Your task to perform on an android device: turn on location history Image 0: 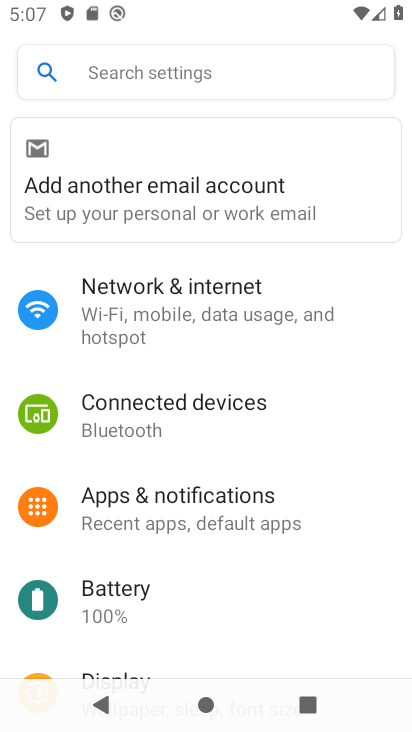
Step 0: drag from (201, 542) to (232, 236)
Your task to perform on an android device: turn on location history Image 1: 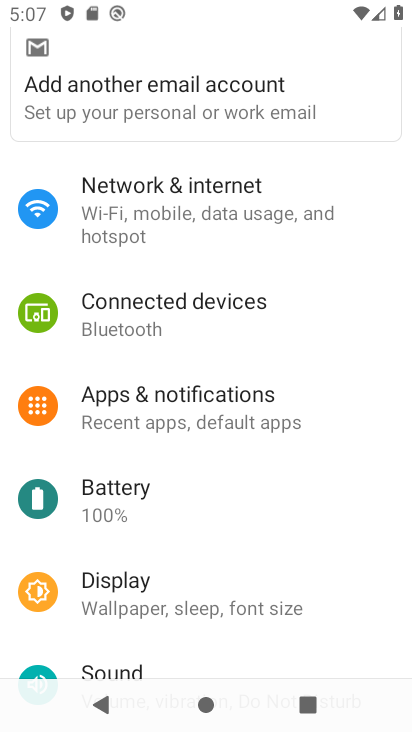
Step 1: drag from (175, 550) to (269, 164)
Your task to perform on an android device: turn on location history Image 2: 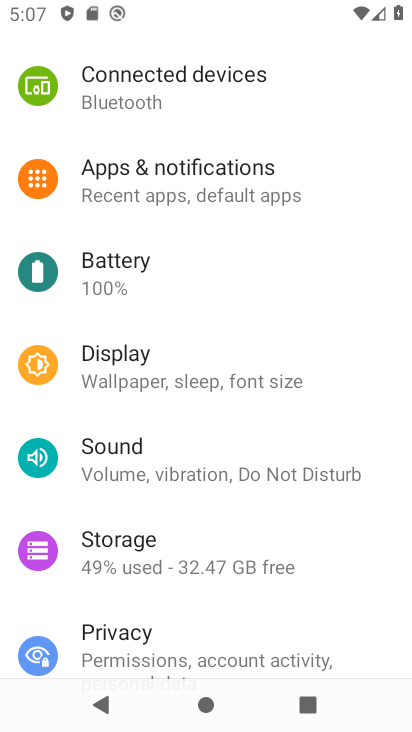
Step 2: drag from (223, 552) to (298, 129)
Your task to perform on an android device: turn on location history Image 3: 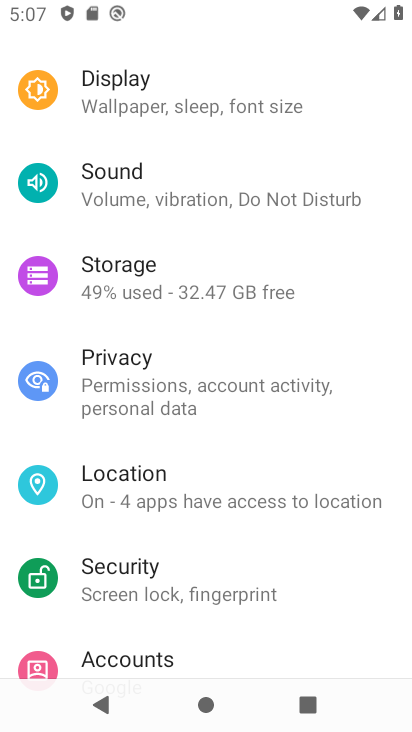
Step 3: click (173, 476)
Your task to perform on an android device: turn on location history Image 4: 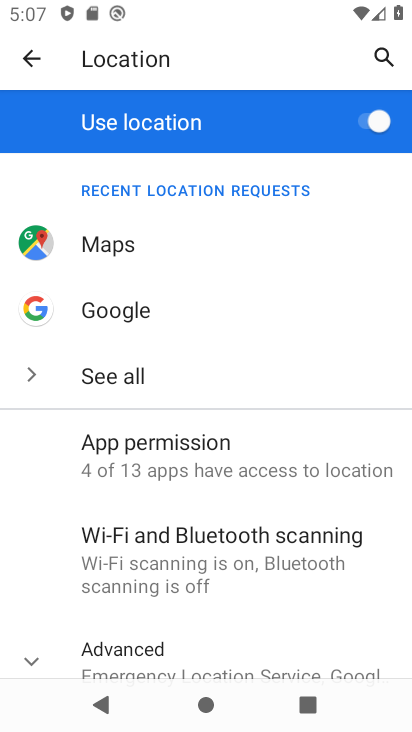
Step 4: drag from (165, 608) to (265, 247)
Your task to perform on an android device: turn on location history Image 5: 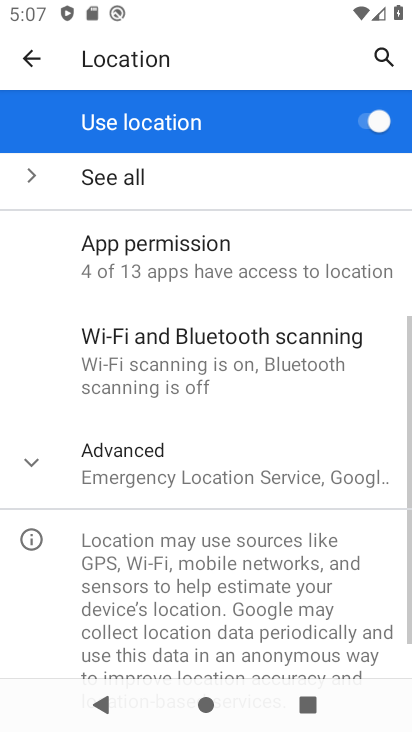
Step 5: drag from (171, 585) to (264, 248)
Your task to perform on an android device: turn on location history Image 6: 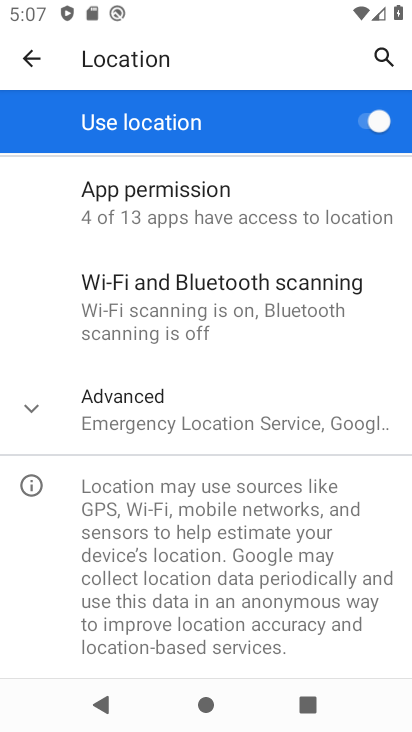
Step 6: click (158, 428)
Your task to perform on an android device: turn on location history Image 7: 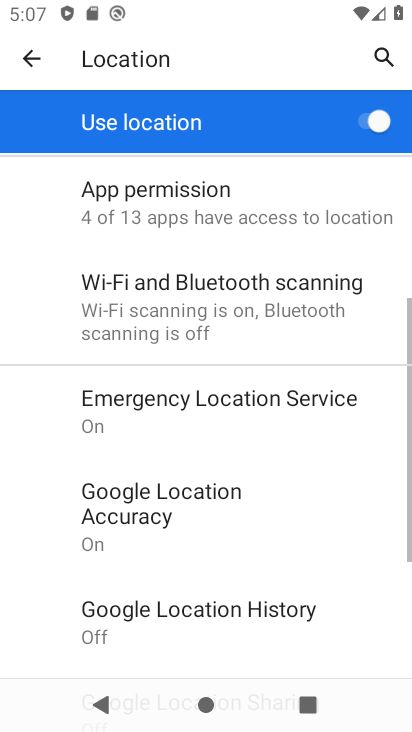
Step 7: drag from (203, 560) to (227, 382)
Your task to perform on an android device: turn on location history Image 8: 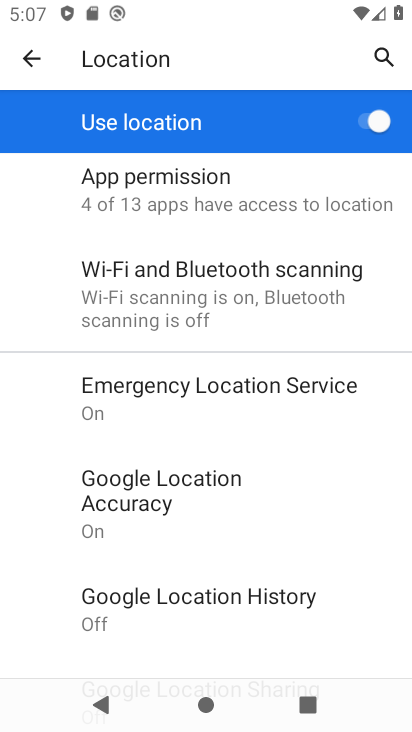
Step 8: click (197, 600)
Your task to perform on an android device: turn on location history Image 9: 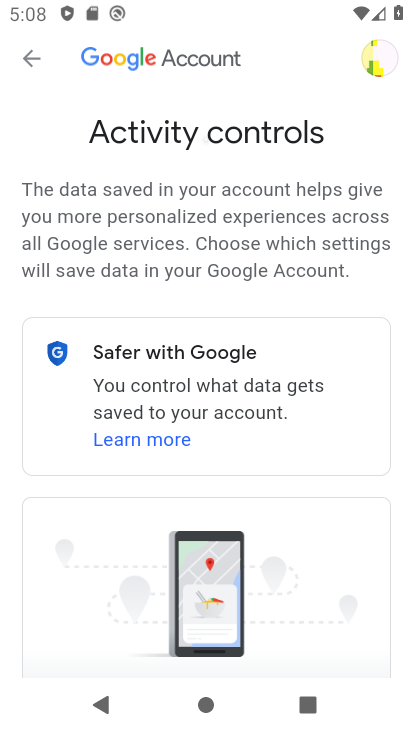
Step 9: drag from (266, 494) to (300, 244)
Your task to perform on an android device: turn on location history Image 10: 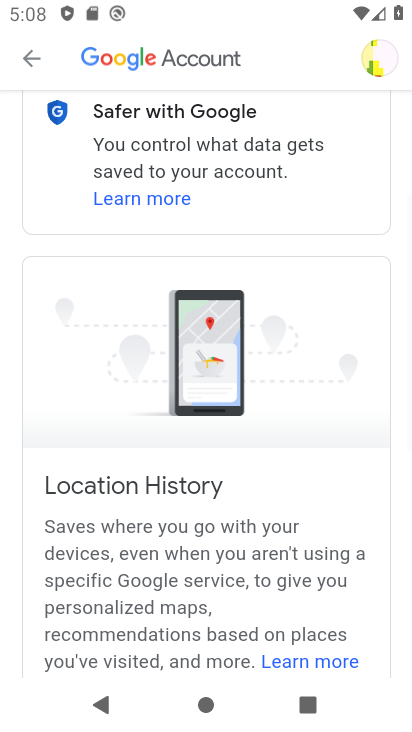
Step 10: drag from (269, 525) to (308, 182)
Your task to perform on an android device: turn on location history Image 11: 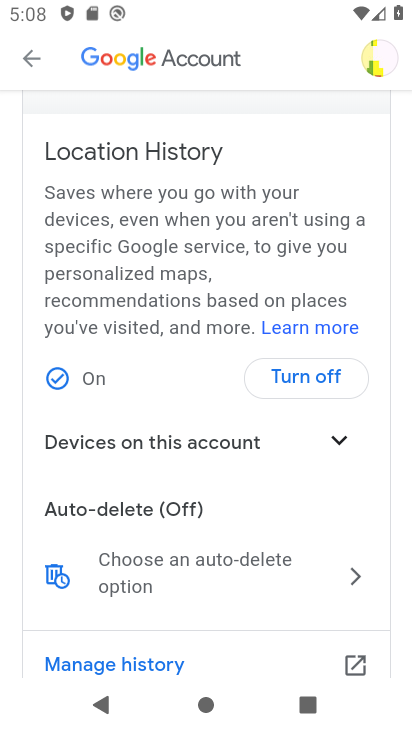
Step 11: drag from (262, 569) to (307, 241)
Your task to perform on an android device: turn on location history Image 12: 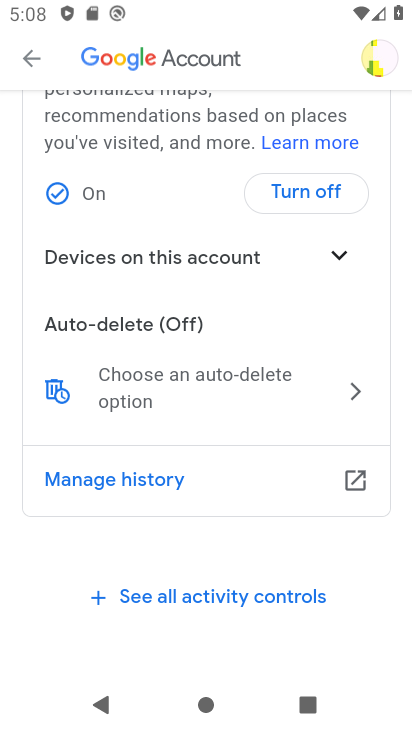
Step 12: click (322, 194)
Your task to perform on an android device: turn on location history Image 13: 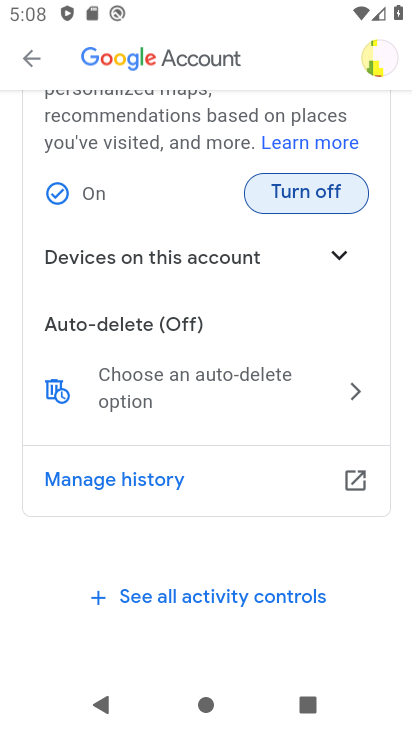
Step 13: click (322, 193)
Your task to perform on an android device: turn on location history Image 14: 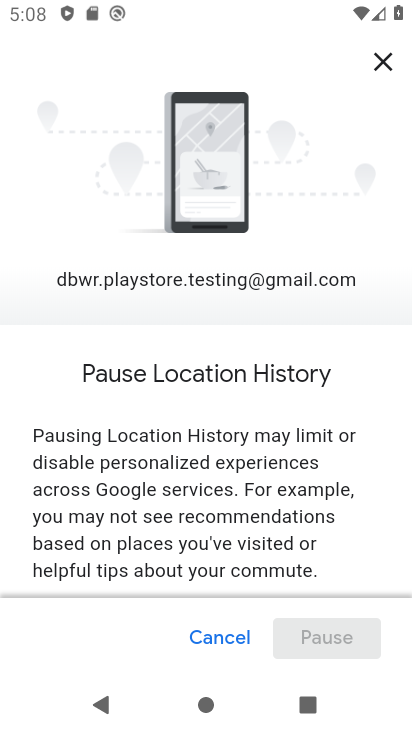
Step 14: drag from (302, 541) to (291, 199)
Your task to perform on an android device: turn on location history Image 15: 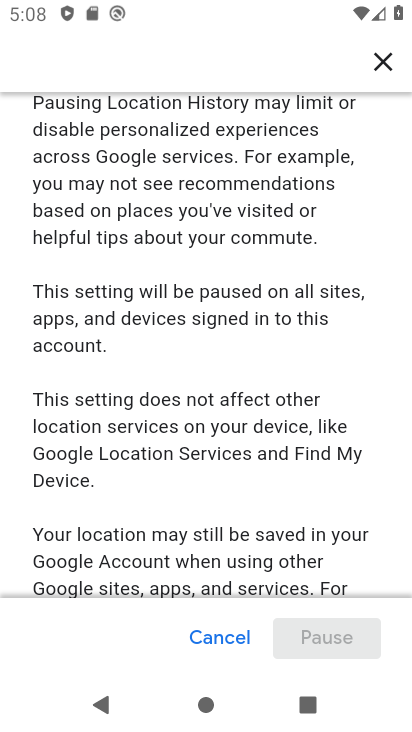
Step 15: drag from (237, 473) to (317, 114)
Your task to perform on an android device: turn on location history Image 16: 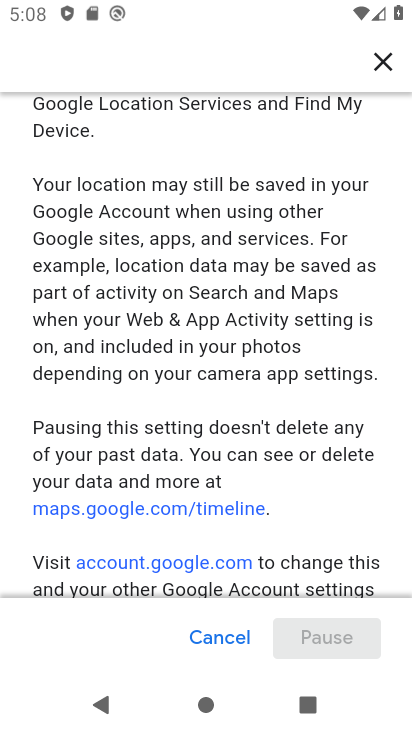
Step 16: drag from (221, 555) to (299, 140)
Your task to perform on an android device: turn on location history Image 17: 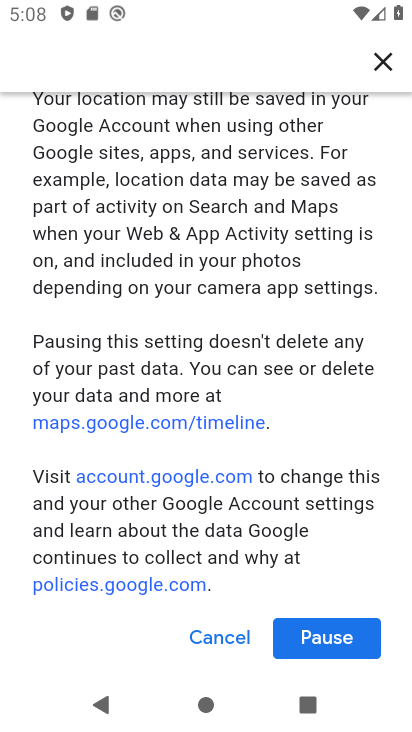
Step 17: click (318, 631)
Your task to perform on an android device: turn on location history Image 18: 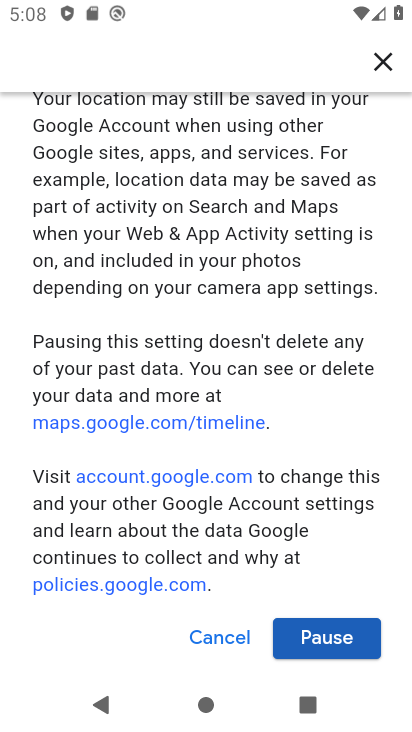
Step 18: click (318, 630)
Your task to perform on an android device: turn on location history Image 19: 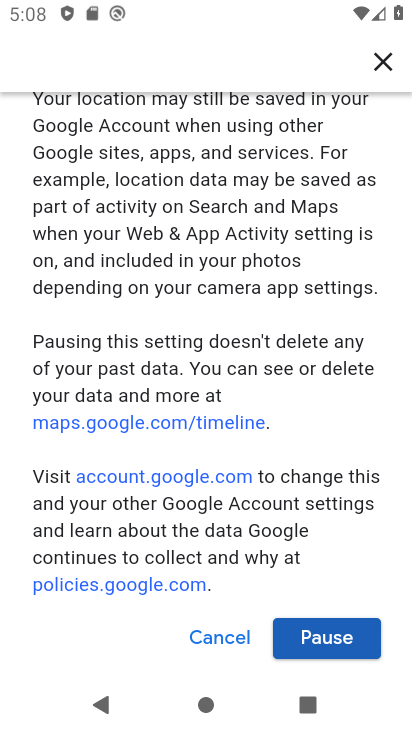
Step 19: click (318, 630)
Your task to perform on an android device: turn on location history Image 20: 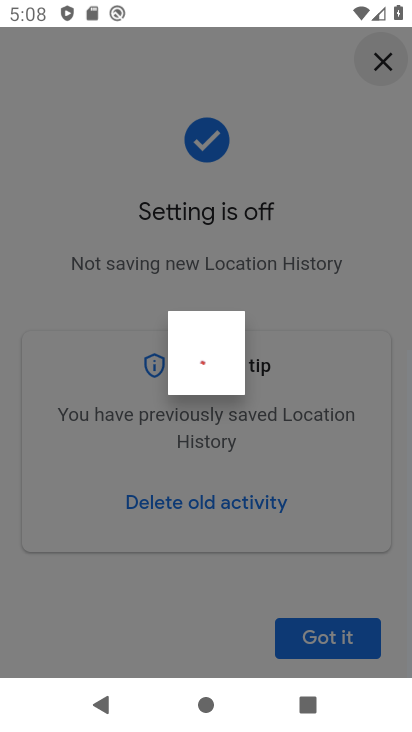
Step 20: click (318, 630)
Your task to perform on an android device: turn on location history Image 21: 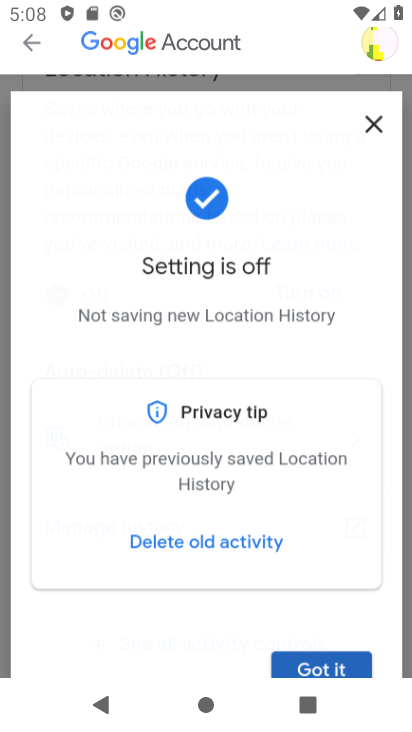
Step 21: click (318, 630)
Your task to perform on an android device: turn on location history Image 22: 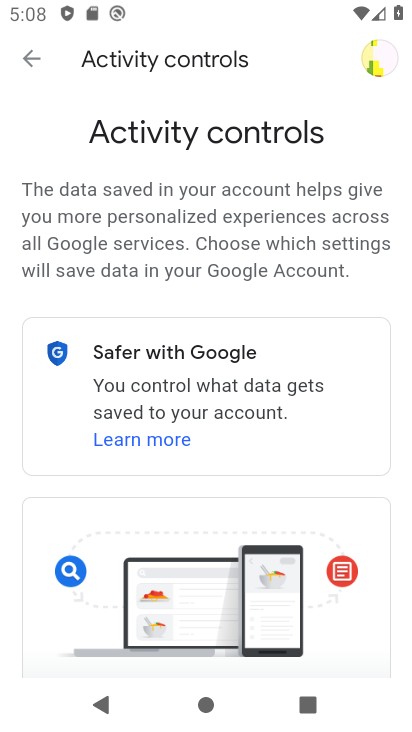
Step 22: task complete